Your task to perform on an android device: Open Amazon Image 0: 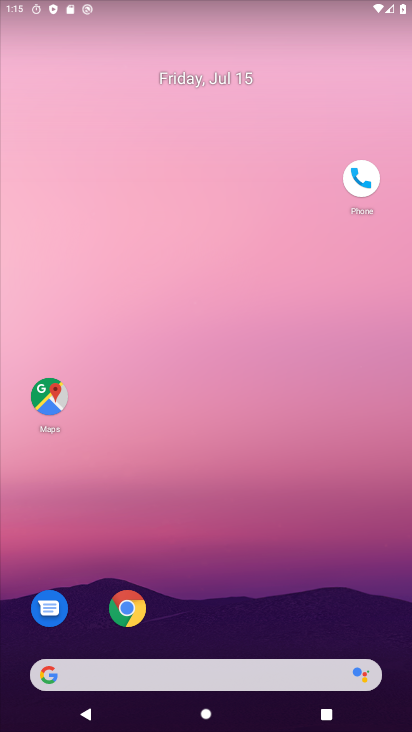
Step 0: drag from (250, 611) to (286, 325)
Your task to perform on an android device: Open Amazon Image 1: 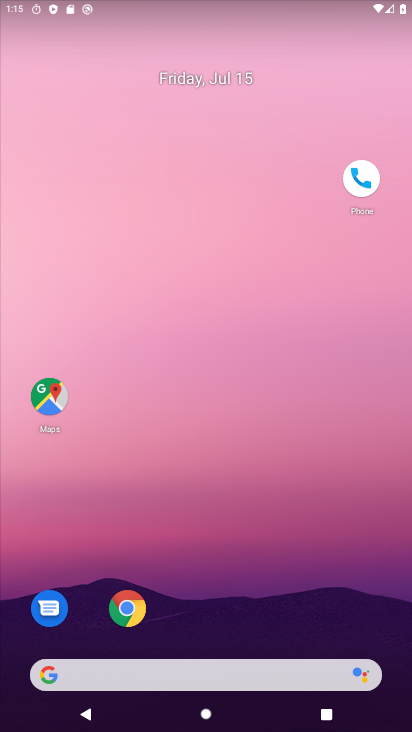
Step 1: drag from (180, 589) to (284, 206)
Your task to perform on an android device: Open Amazon Image 2: 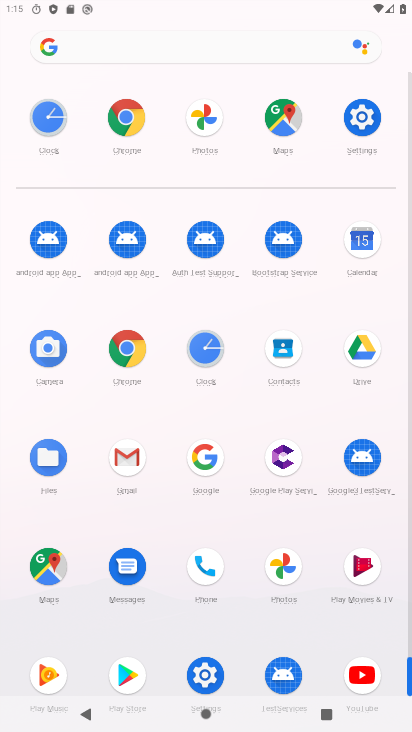
Step 2: click (133, 354)
Your task to perform on an android device: Open Amazon Image 3: 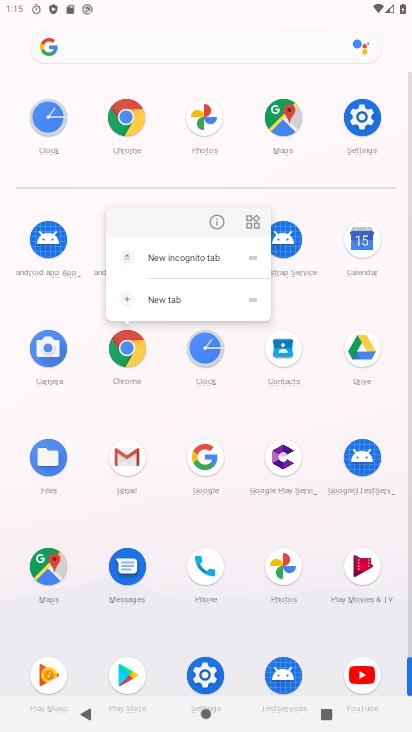
Step 3: click (212, 217)
Your task to perform on an android device: Open Amazon Image 4: 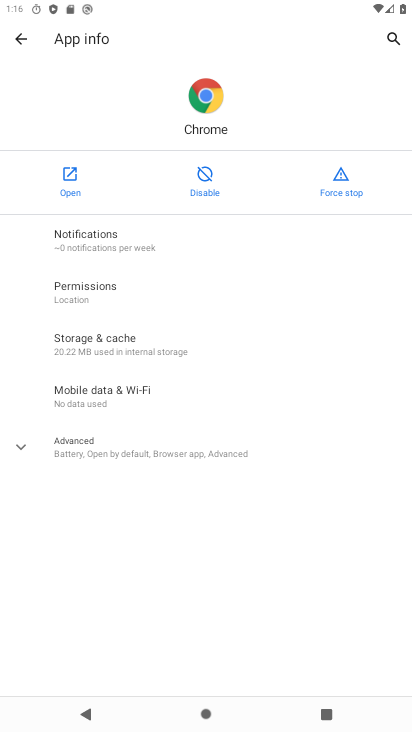
Step 4: click (42, 239)
Your task to perform on an android device: Open Amazon Image 5: 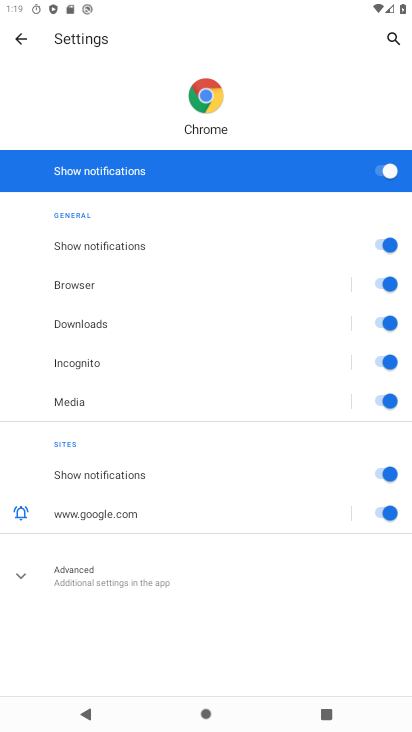
Step 5: drag from (252, 575) to (285, 372)
Your task to perform on an android device: Open Amazon Image 6: 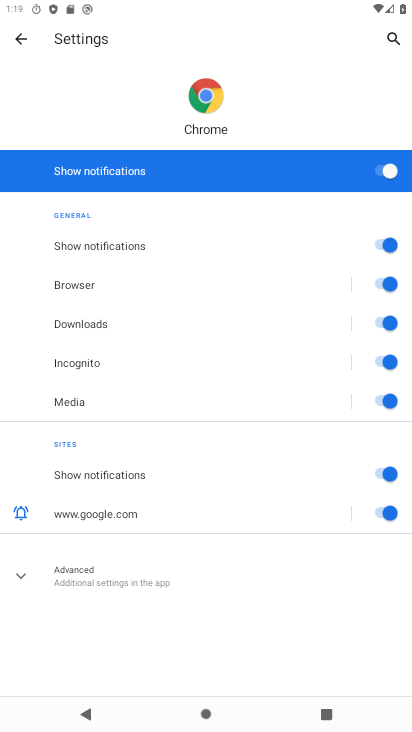
Step 6: press home button
Your task to perform on an android device: Open Amazon Image 7: 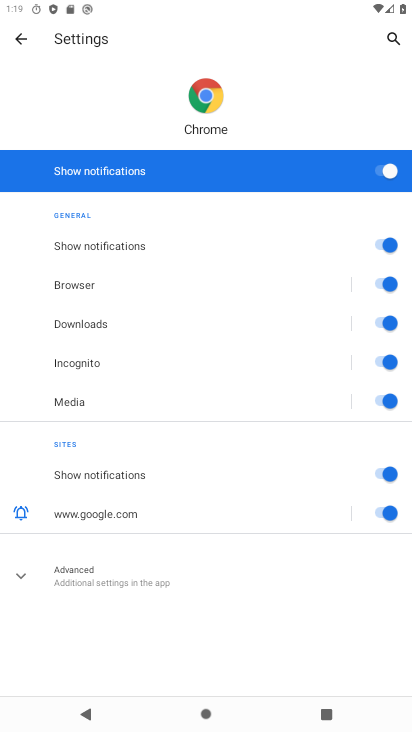
Step 7: press home button
Your task to perform on an android device: Open Amazon Image 8: 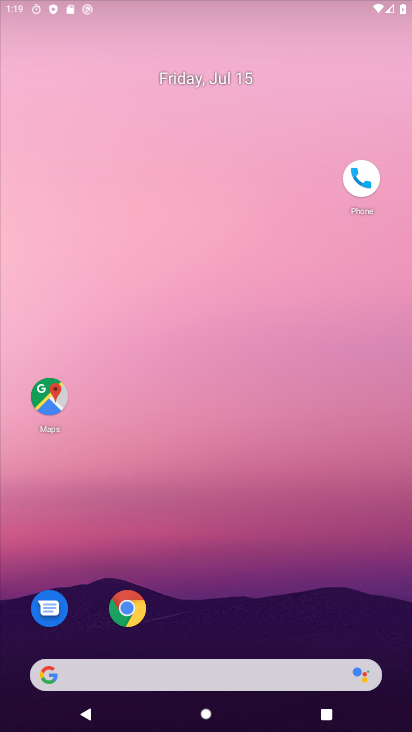
Step 8: drag from (243, 617) to (204, 123)
Your task to perform on an android device: Open Amazon Image 9: 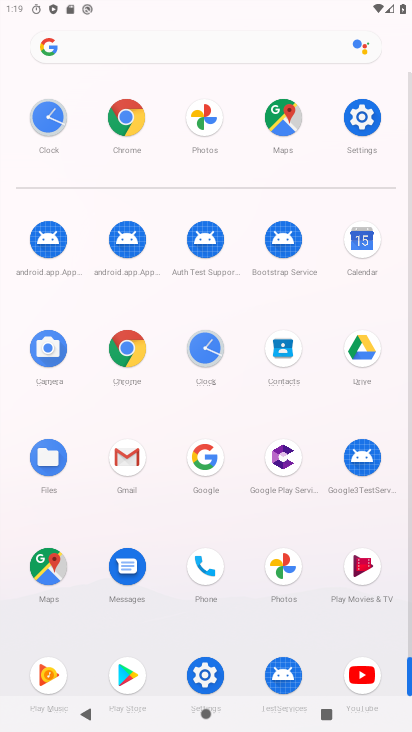
Step 9: click (117, 115)
Your task to perform on an android device: Open Amazon Image 10: 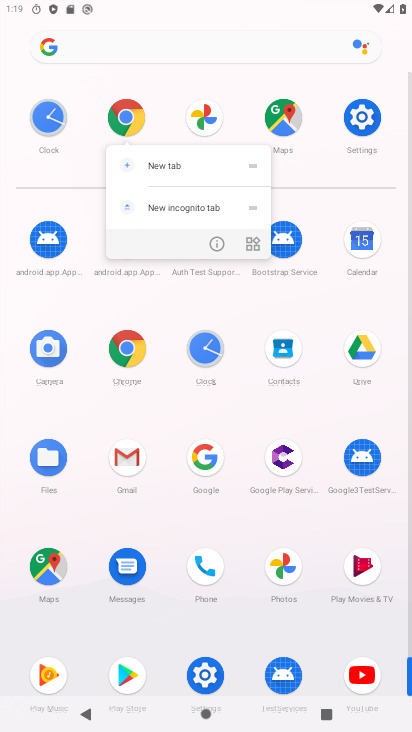
Step 10: click (209, 247)
Your task to perform on an android device: Open Amazon Image 11: 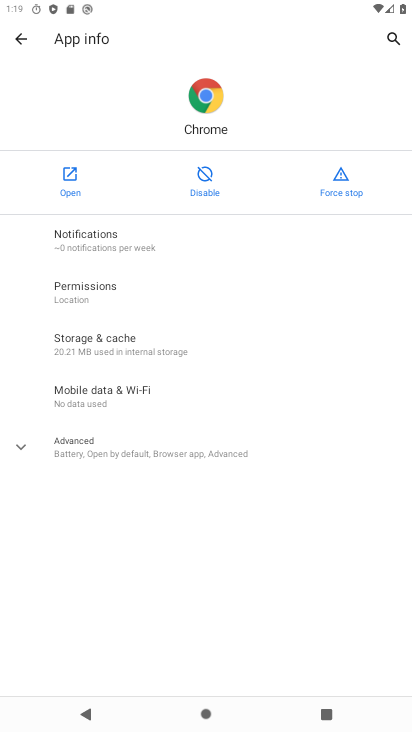
Step 11: click (74, 186)
Your task to perform on an android device: Open Amazon Image 12: 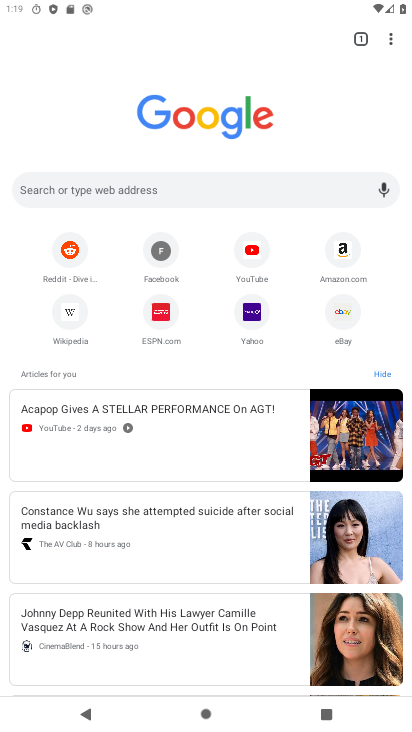
Step 12: click (329, 254)
Your task to perform on an android device: Open Amazon Image 13: 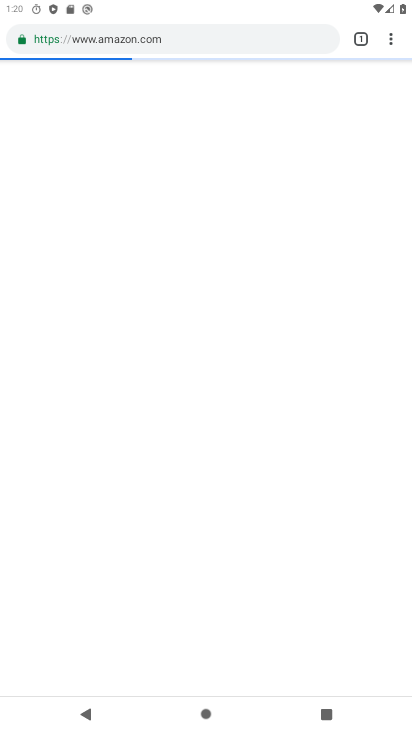
Step 13: task complete